Your task to perform on an android device: Open CNN.com Image 0: 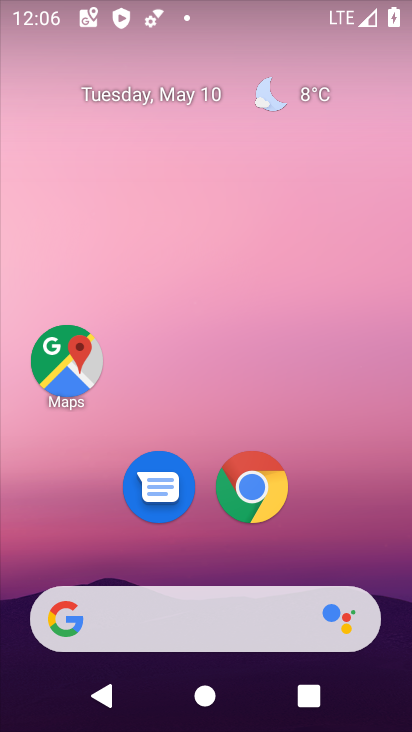
Step 0: drag from (205, 545) to (220, 73)
Your task to perform on an android device: Open CNN.com Image 1: 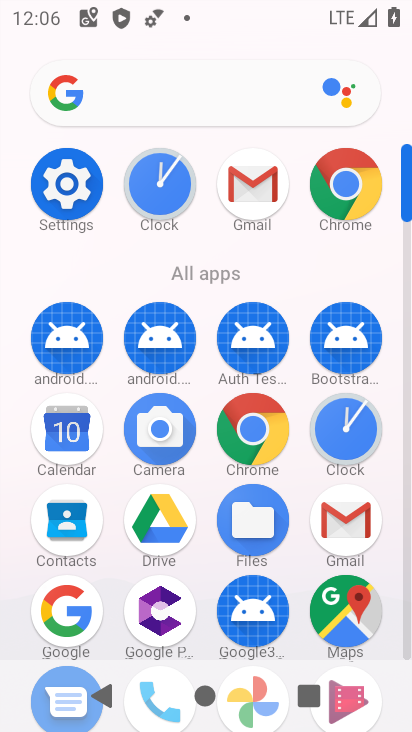
Step 1: click (251, 423)
Your task to perform on an android device: Open CNN.com Image 2: 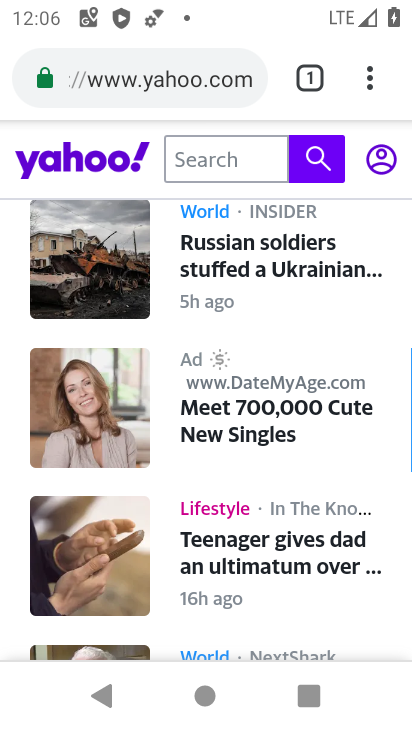
Step 2: click (313, 76)
Your task to perform on an android device: Open CNN.com Image 3: 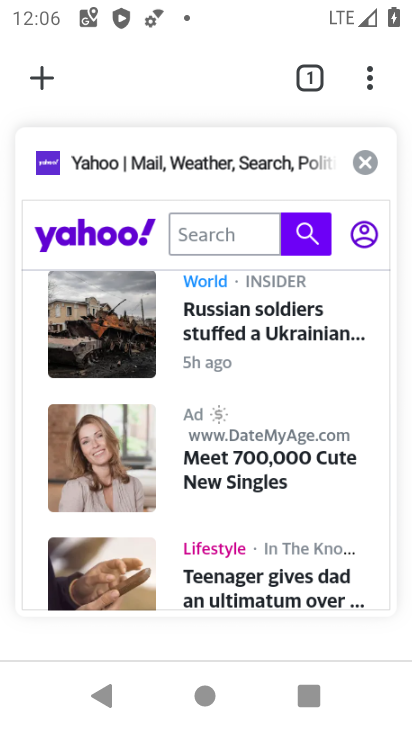
Step 3: click (363, 158)
Your task to perform on an android device: Open CNN.com Image 4: 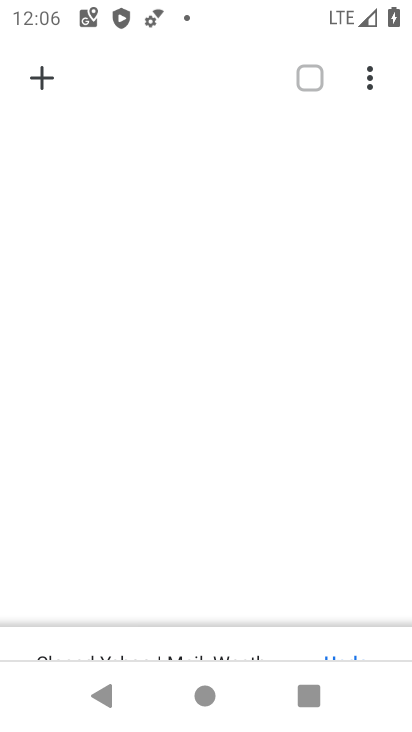
Step 4: click (45, 78)
Your task to perform on an android device: Open CNN.com Image 5: 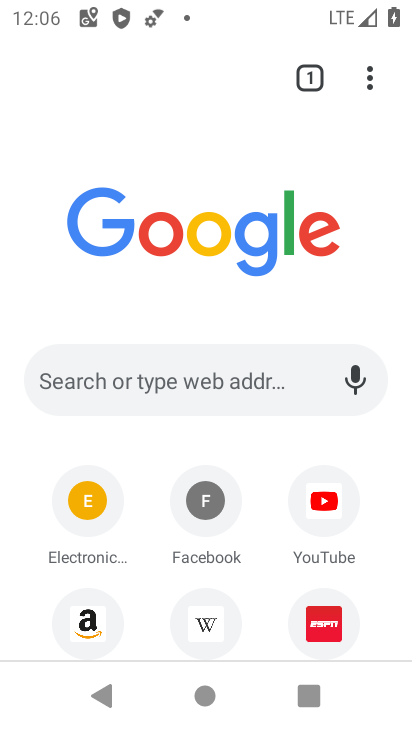
Step 5: click (145, 376)
Your task to perform on an android device: Open CNN.com Image 6: 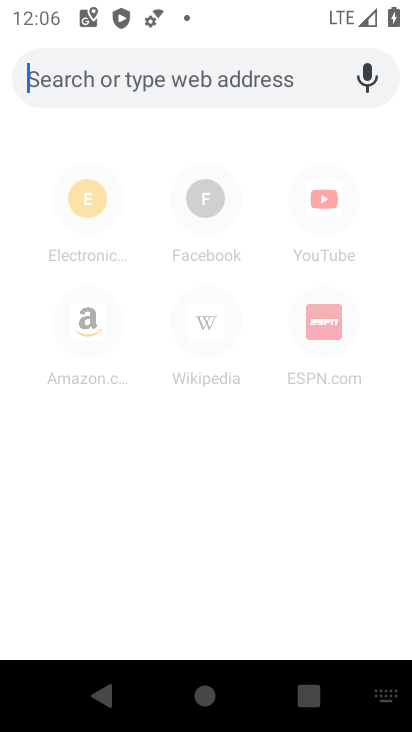
Step 6: type "cnn.com"
Your task to perform on an android device: Open CNN.com Image 7: 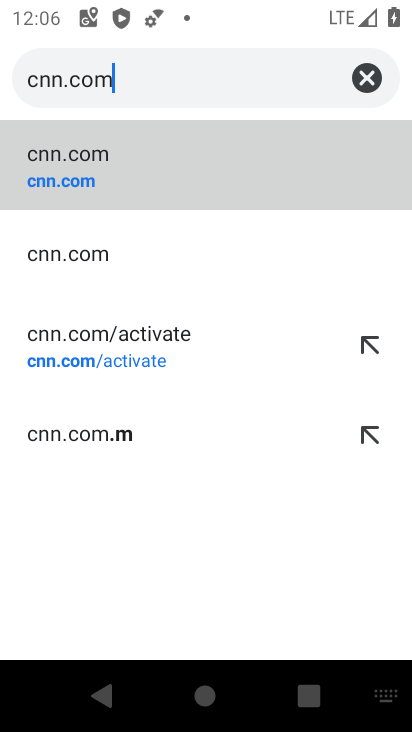
Step 7: click (101, 169)
Your task to perform on an android device: Open CNN.com Image 8: 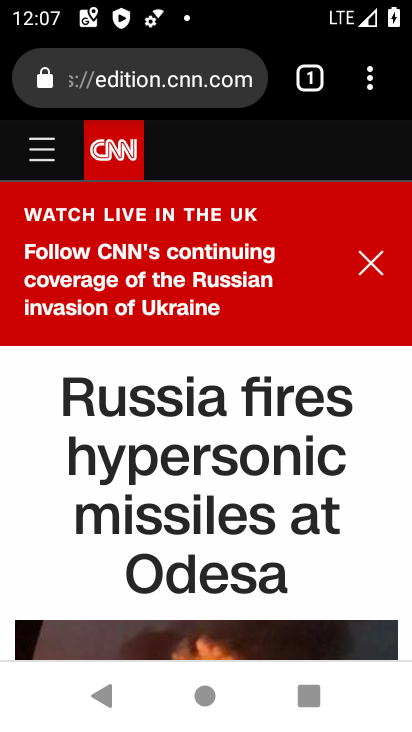
Step 8: task complete